Your task to perform on an android device: Go to Android settings Image 0: 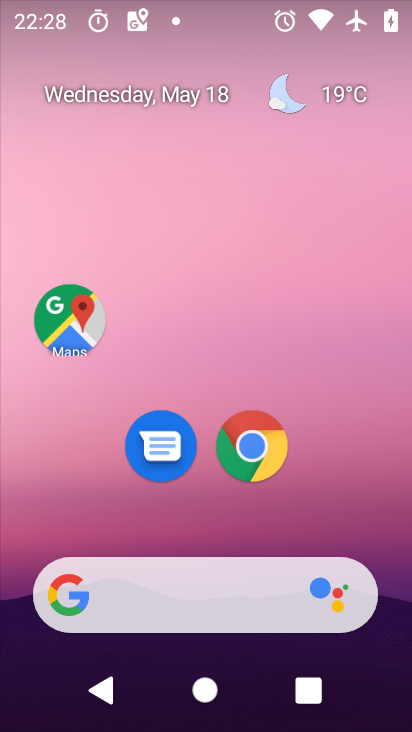
Step 0: click (262, 452)
Your task to perform on an android device: Go to Android settings Image 1: 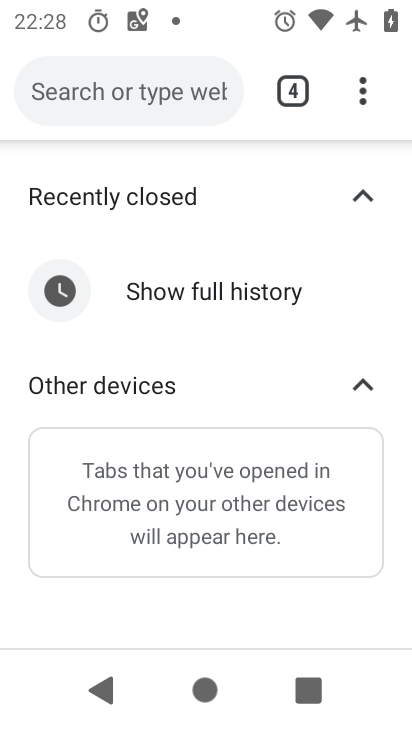
Step 1: press home button
Your task to perform on an android device: Go to Android settings Image 2: 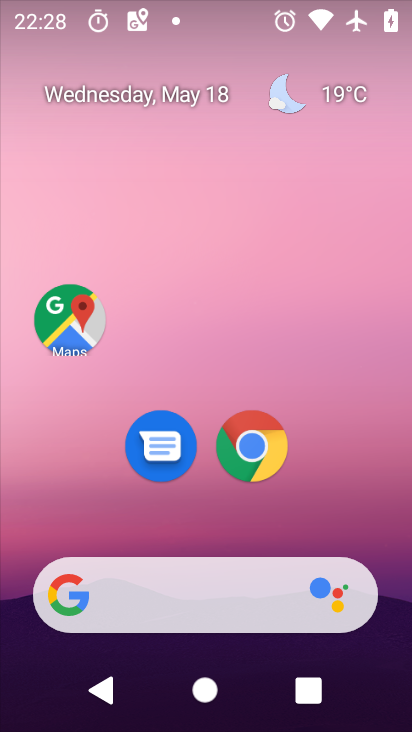
Step 2: drag from (231, 320) to (347, 50)
Your task to perform on an android device: Go to Android settings Image 3: 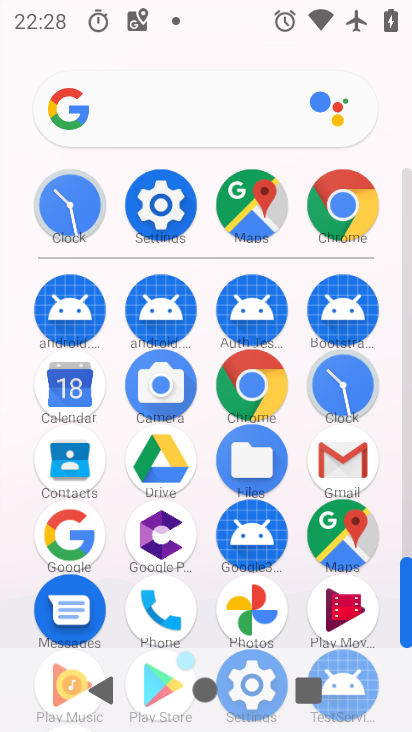
Step 3: click (173, 219)
Your task to perform on an android device: Go to Android settings Image 4: 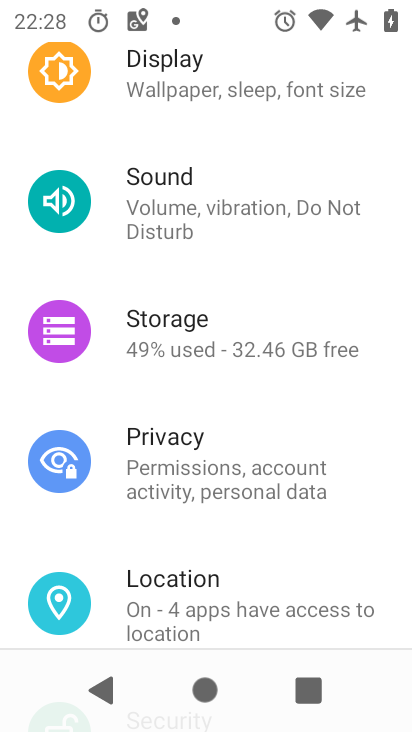
Step 4: task complete